Your task to perform on an android device: Set the phone to "Do not disturb". Image 0: 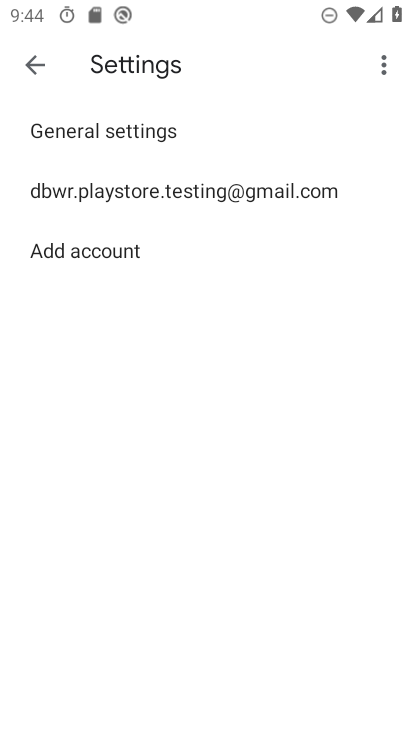
Step 0: press home button
Your task to perform on an android device: Set the phone to "Do not disturb". Image 1: 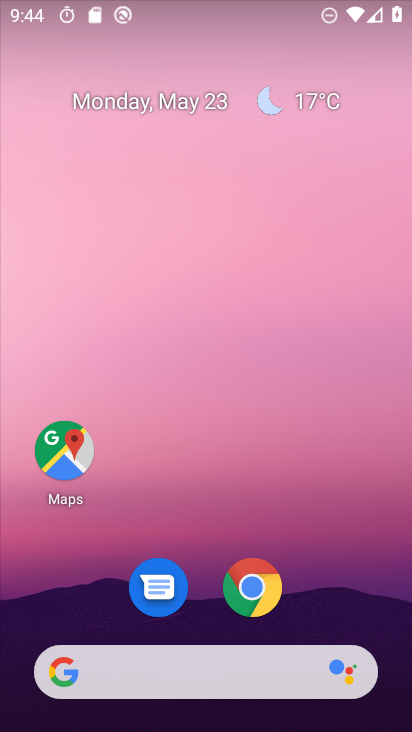
Step 1: task complete